Your task to perform on an android device: Clear the shopping cart on bestbuy. Image 0: 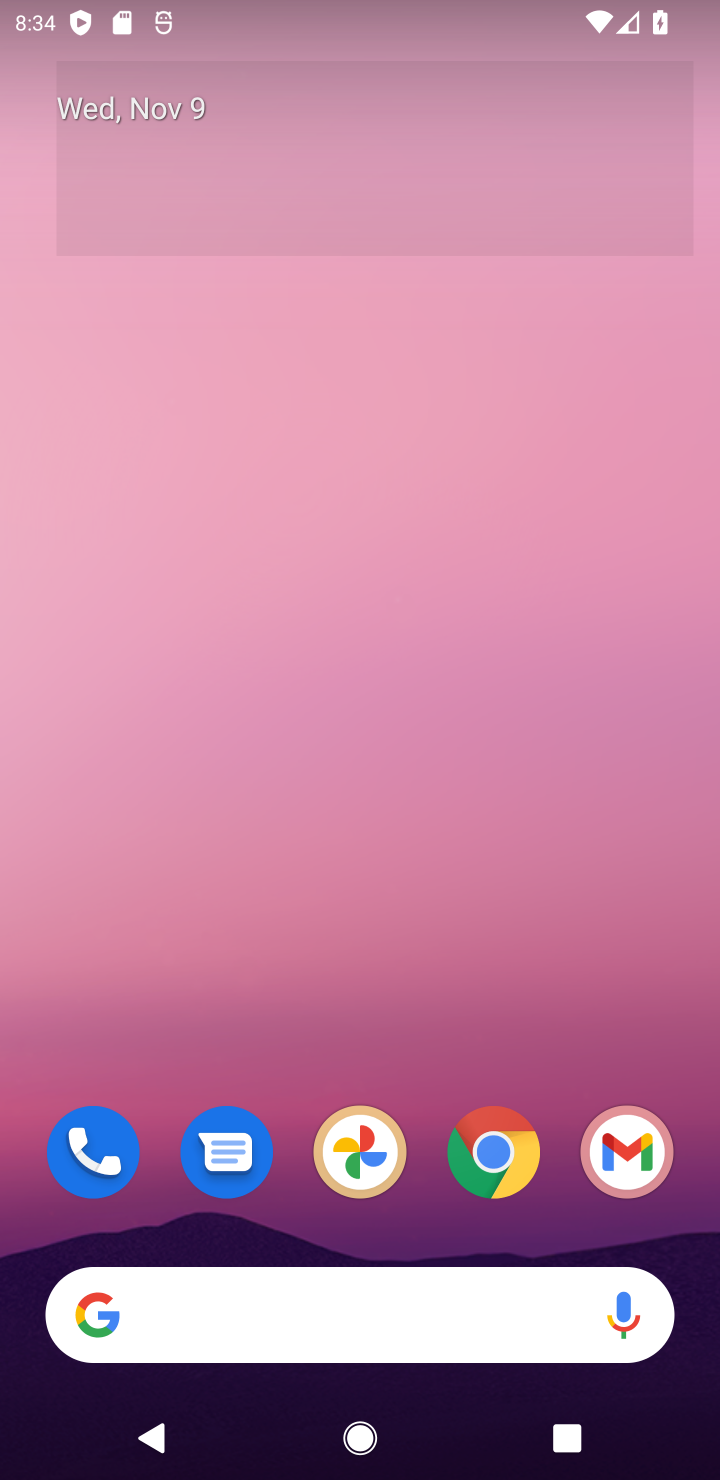
Step 0: click (501, 1149)
Your task to perform on an android device: Clear the shopping cart on bestbuy. Image 1: 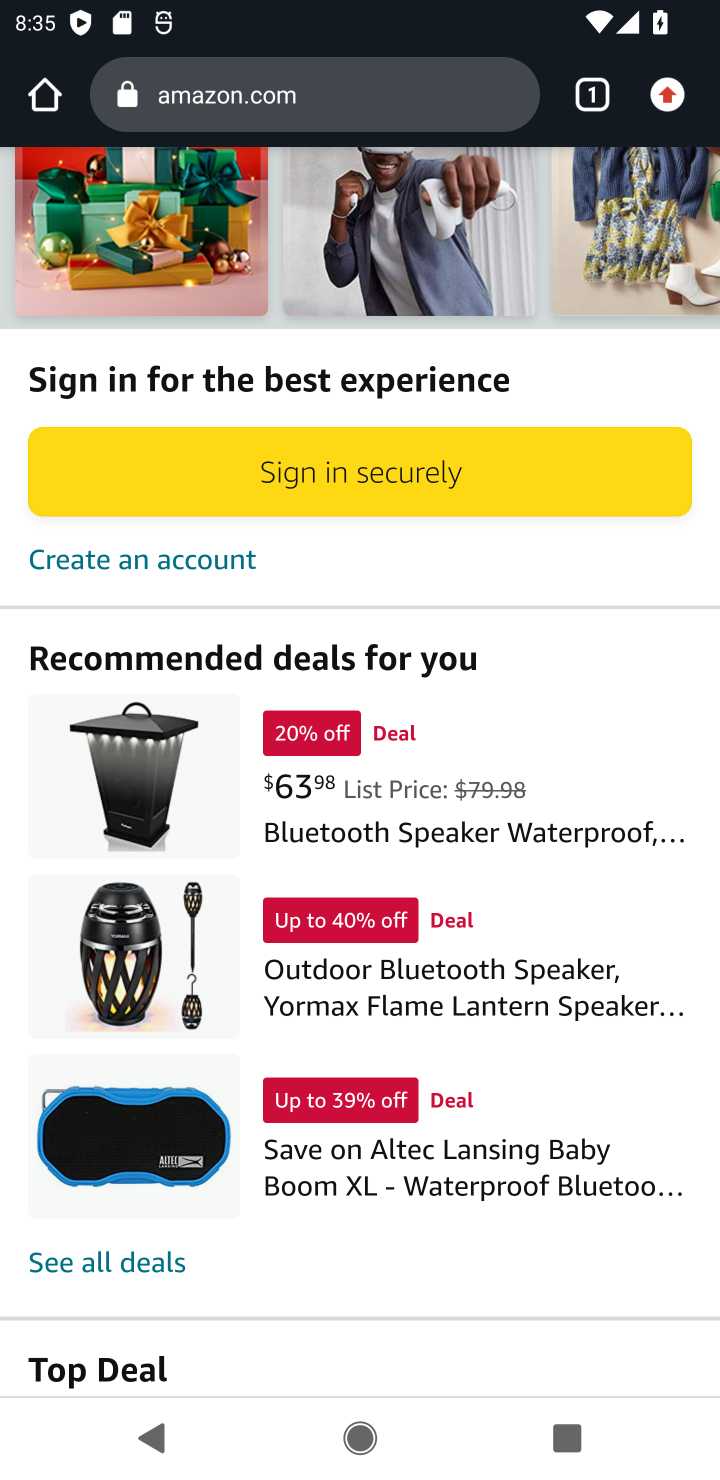
Step 1: click (337, 90)
Your task to perform on an android device: Clear the shopping cart on bestbuy. Image 2: 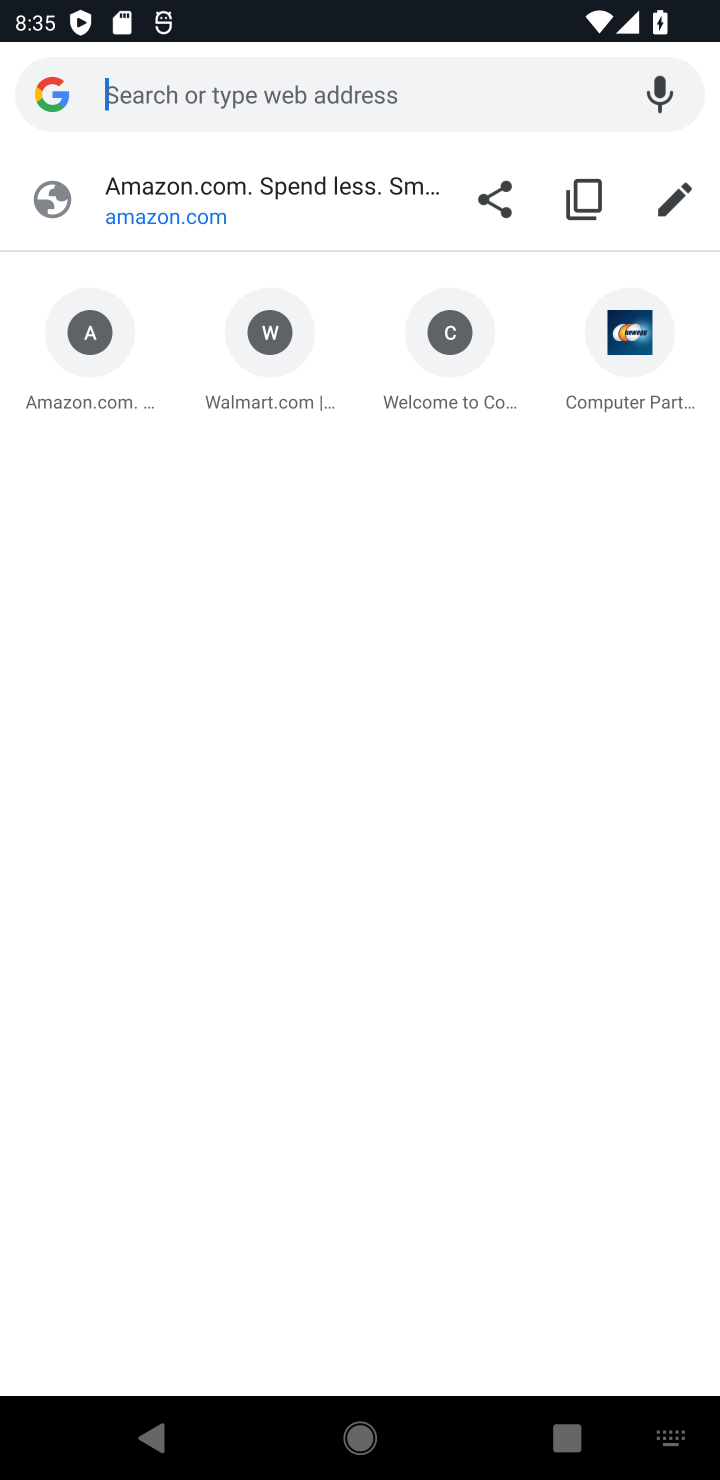
Step 2: type " bestbuy"
Your task to perform on an android device: Clear the shopping cart on bestbuy. Image 3: 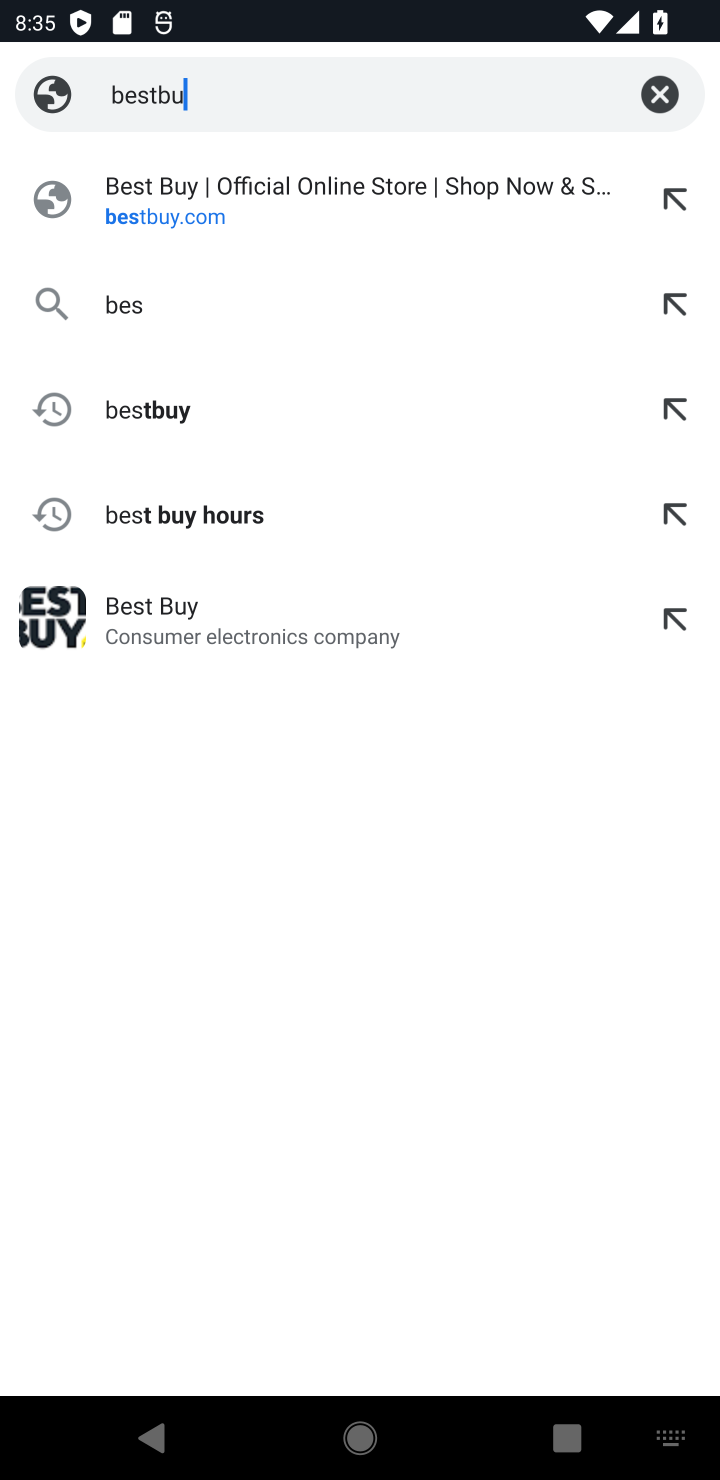
Step 3: press enter
Your task to perform on an android device: Clear the shopping cart on bestbuy. Image 4: 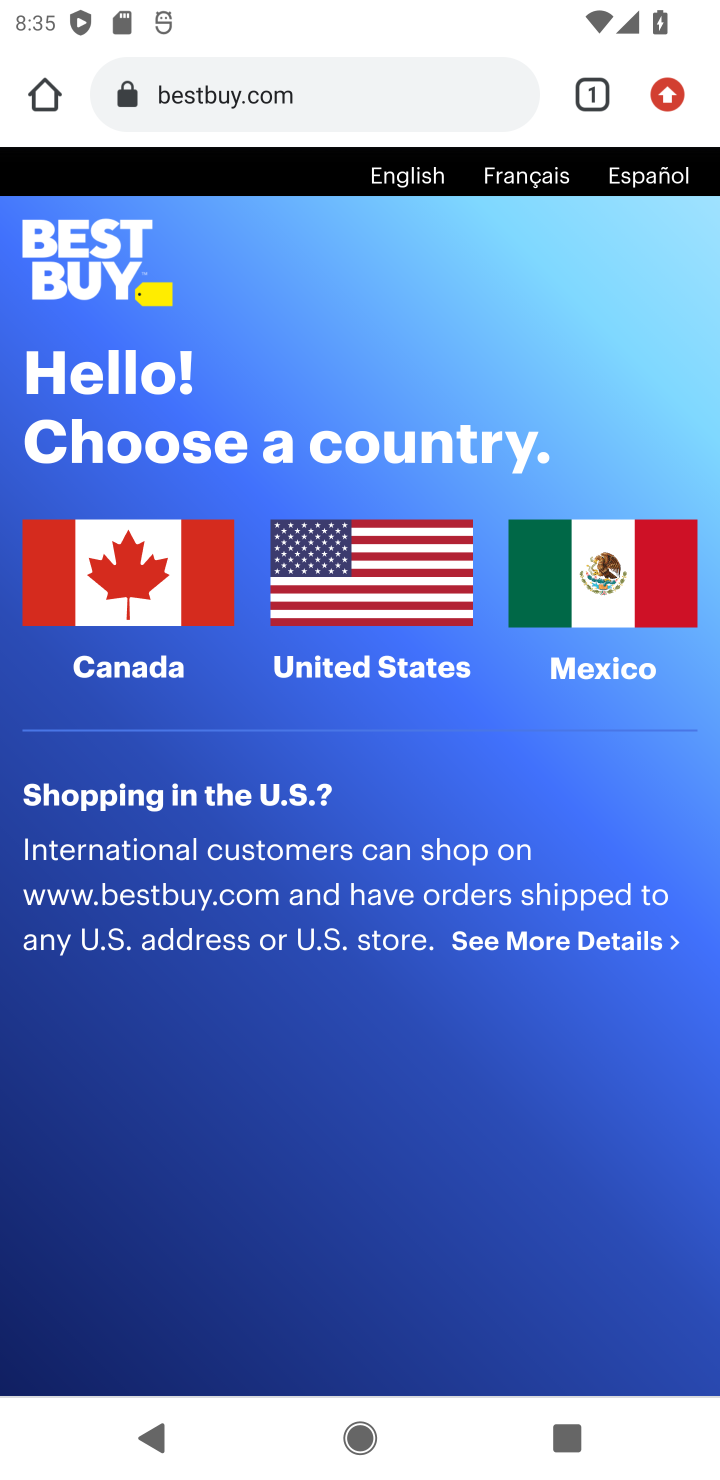
Step 4: click (115, 584)
Your task to perform on an android device: Clear the shopping cart on bestbuy. Image 5: 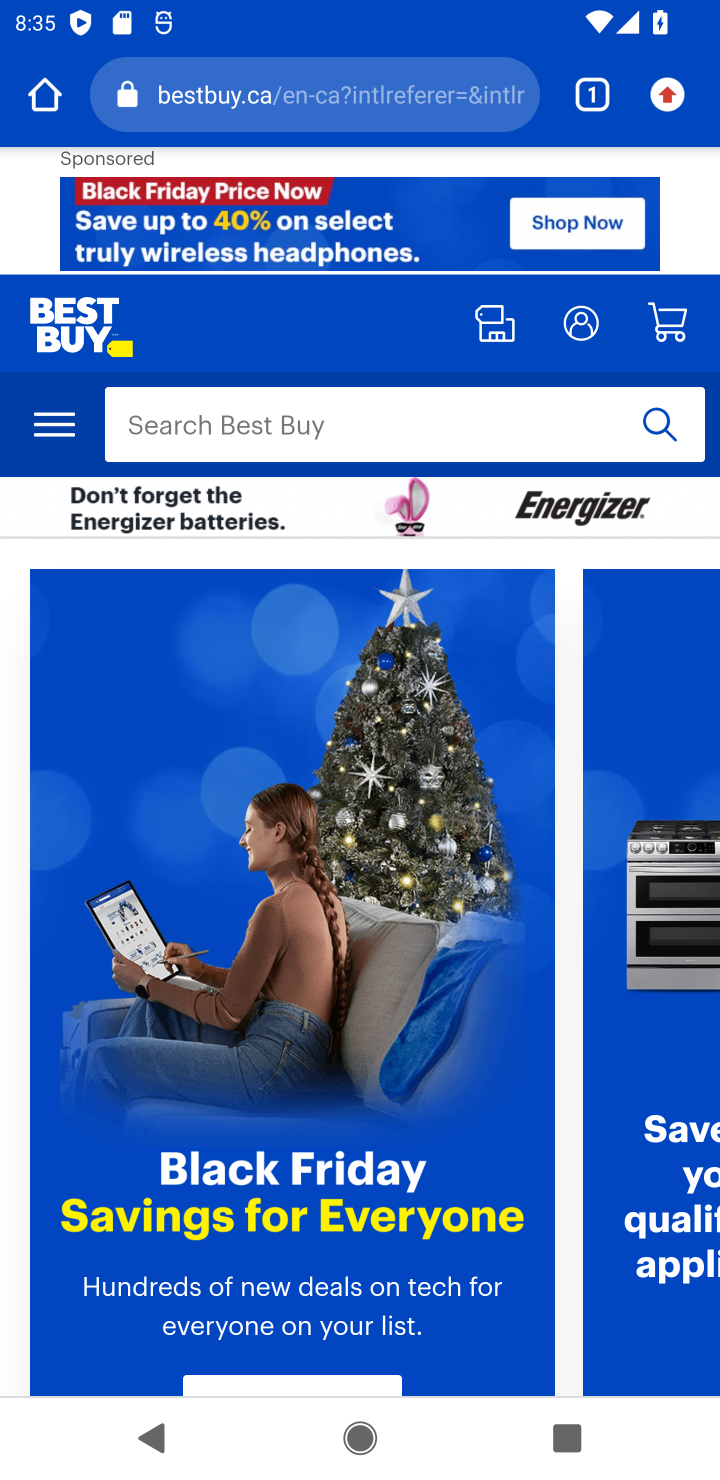
Step 5: click (253, 431)
Your task to perform on an android device: Clear the shopping cart on bestbuy. Image 6: 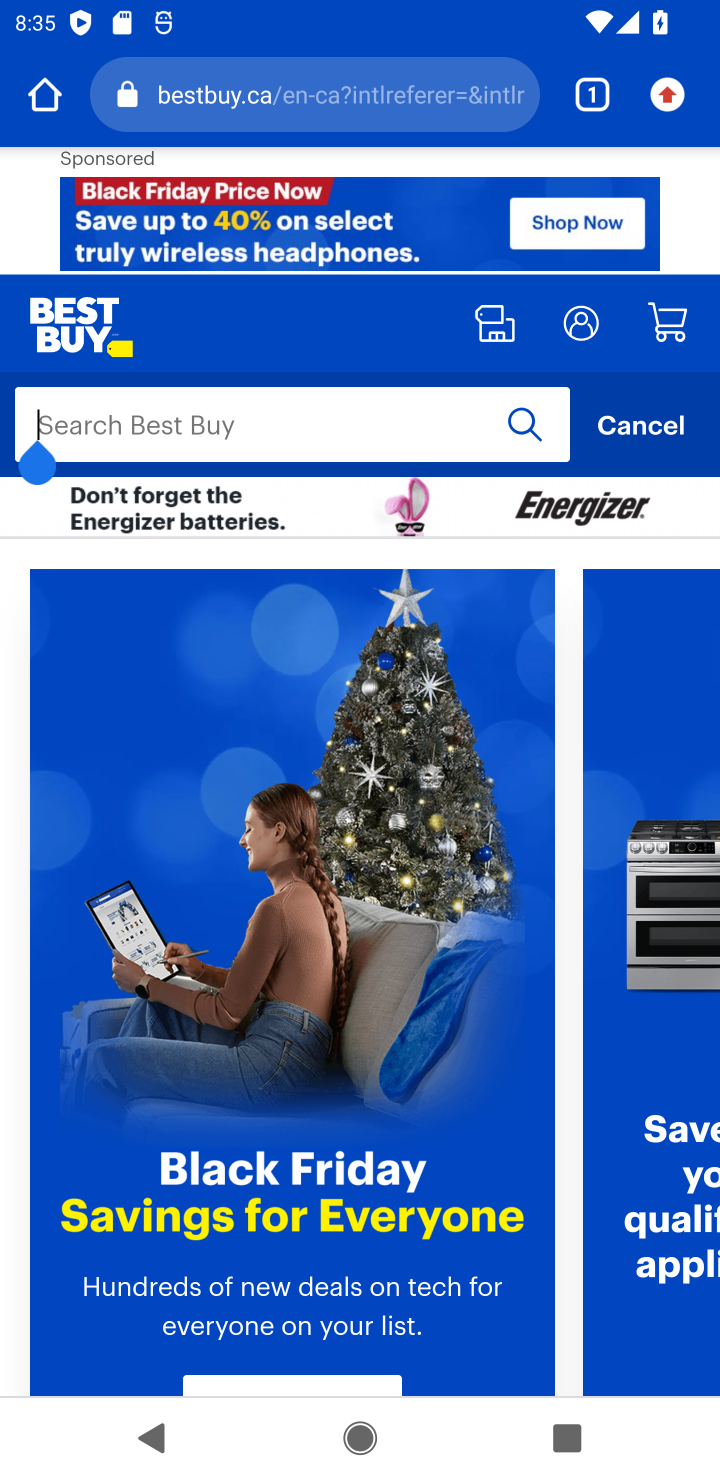
Step 6: click (674, 321)
Your task to perform on an android device: Clear the shopping cart on bestbuy. Image 7: 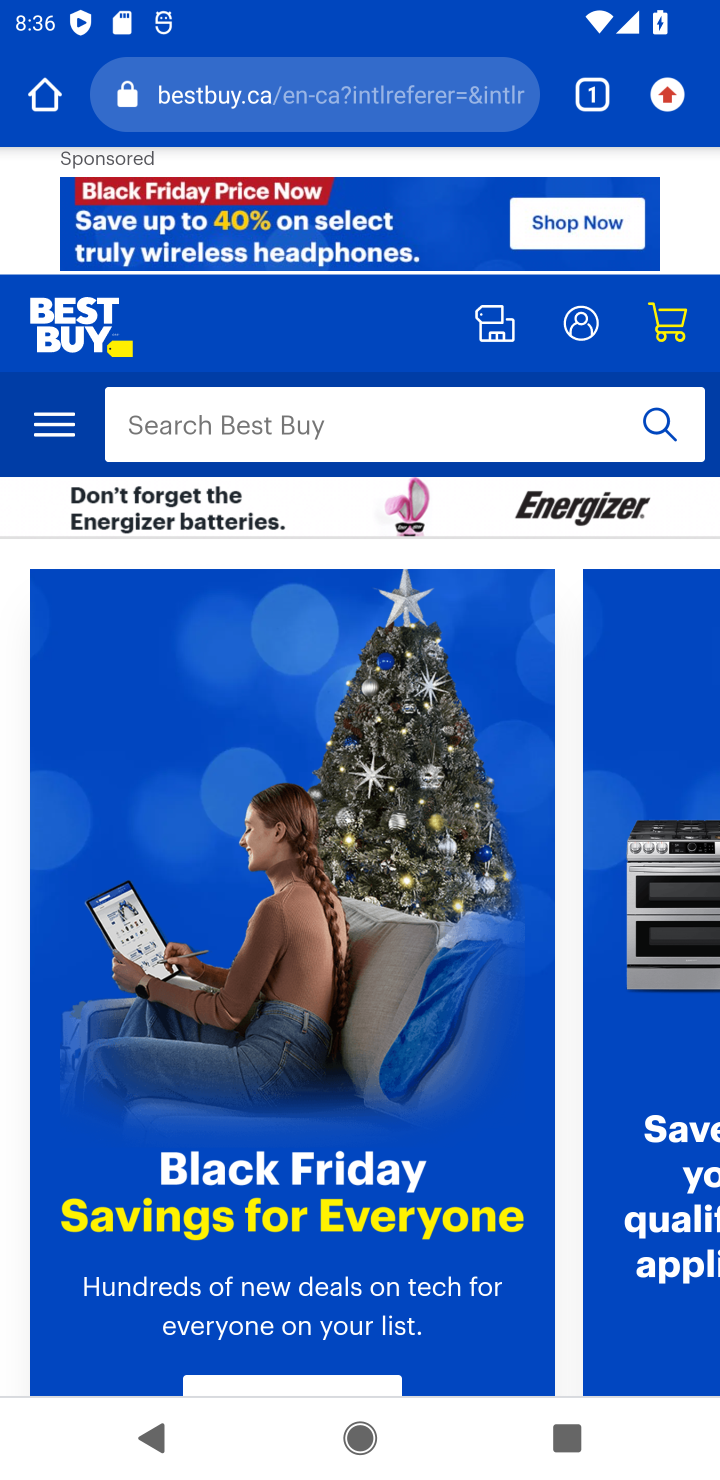
Step 7: click (674, 320)
Your task to perform on an android device: Clear the shopping cart on bestbuy. Image 8: 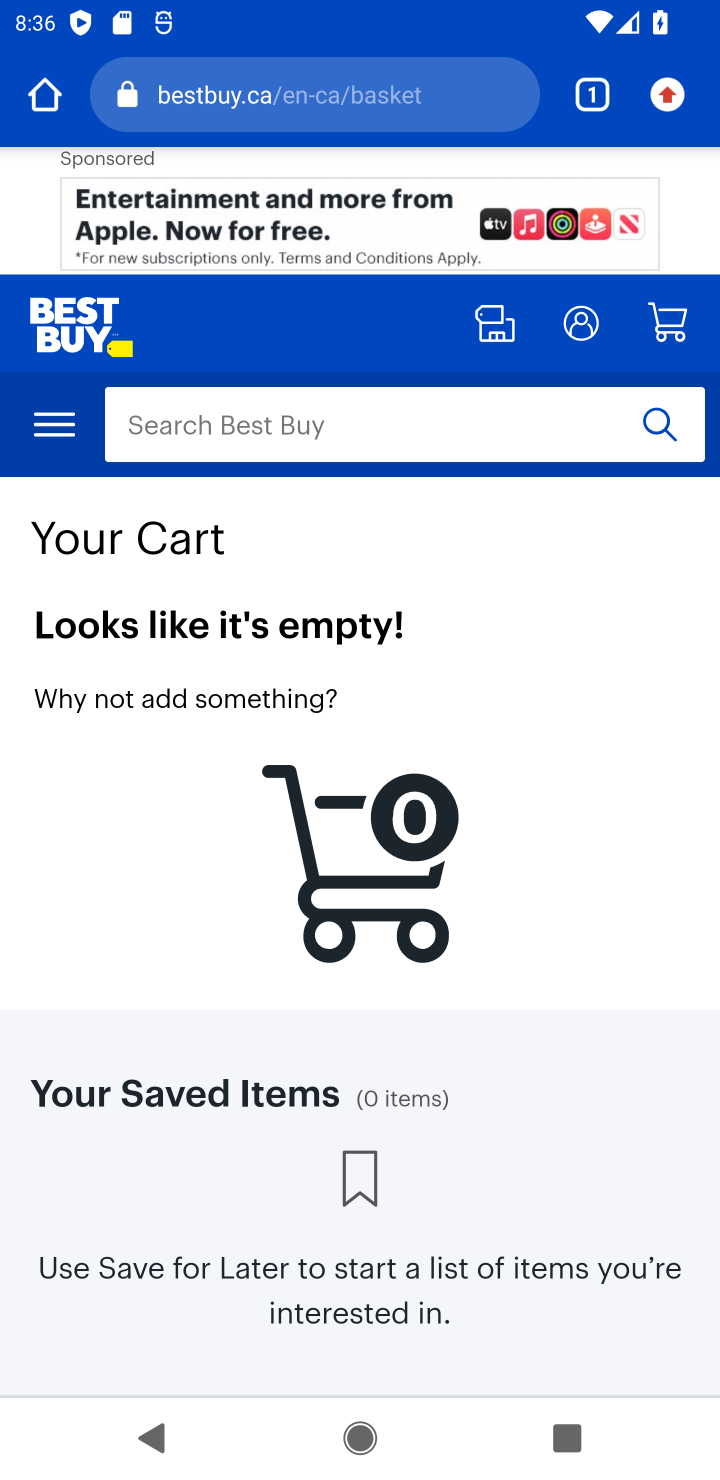
Step 8: task complete